Your task to perform on an android device: see creations saved in the google photos Image 0: 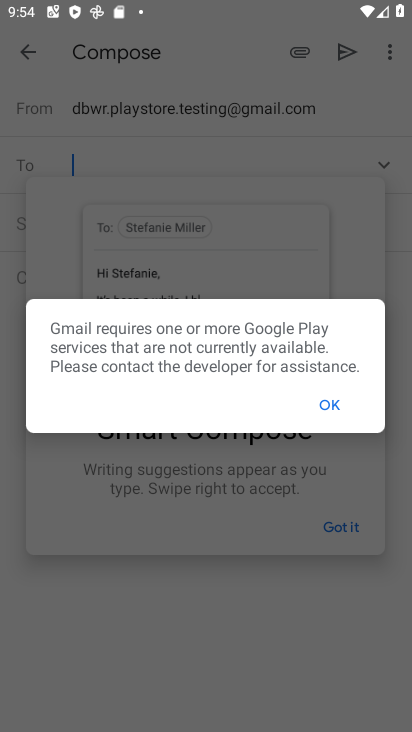
Step 0: press home button
Your task to perform on an android device: see creations saved in the google photos Image 1: 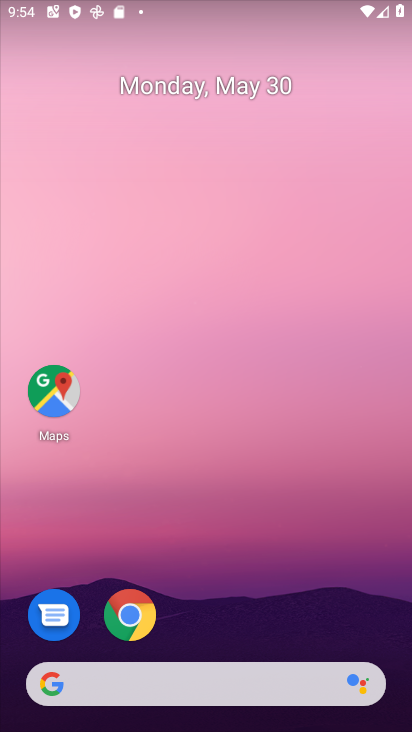
Step 1: drag from (313, 487) to (244, 5)
Your task to perform on an android device: see creations saved in the google photos Image 2: 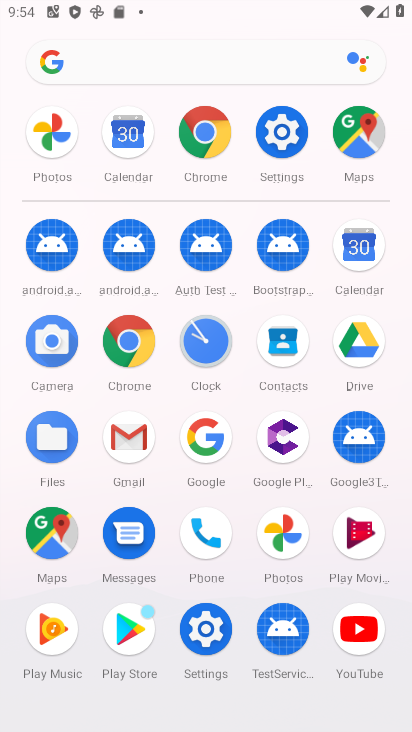
Step 2: click (286, 537)
Your task to perform on an android device: see creations saved in the google photos Image 3: 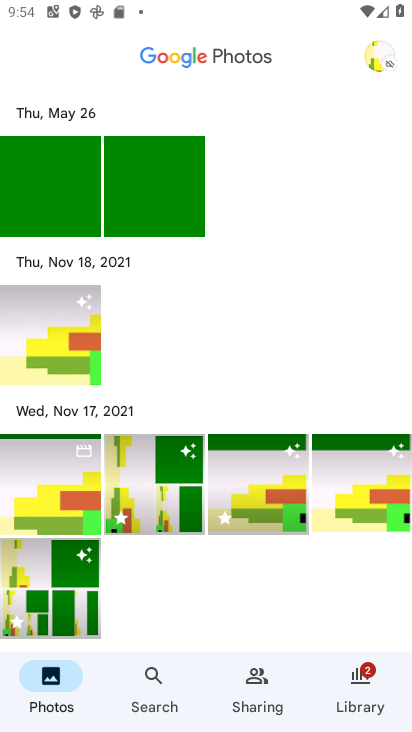
Step 3: click (150, 691)
Your task to perform on an android device: see creations saved in the google photos Image 4: 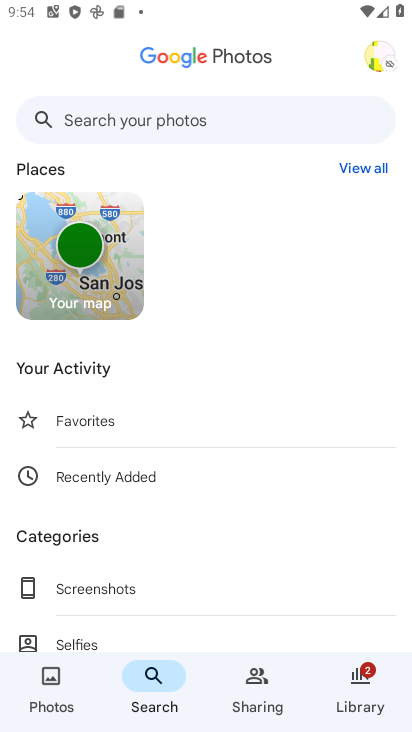
Step 4: click (203, 122)
Your task to perform on an android device: see creations saved in the google photos Image 5: 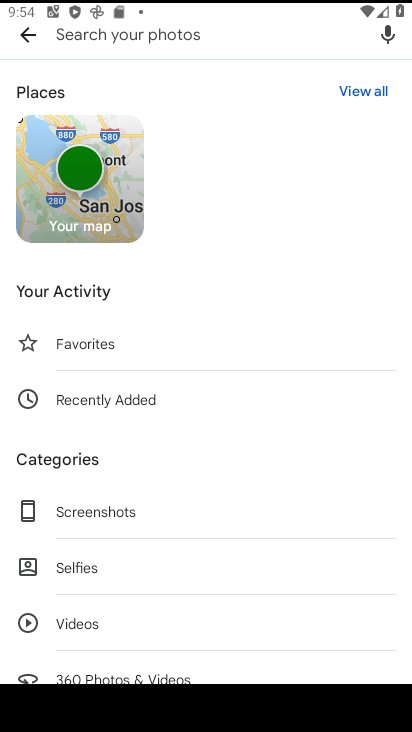
Step 5: type "creations"
Your task to perform on an android device: see creations saved in the google photos Image 6: 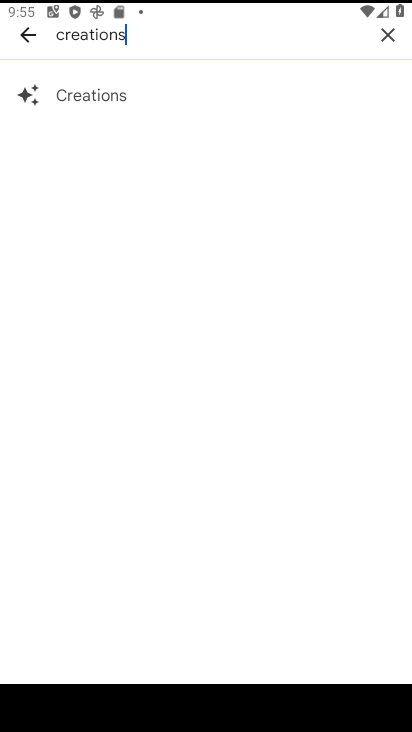
Step 6: click (109, 98)
Your task to perform on an android device: see creations saved in the google photos Image 7: 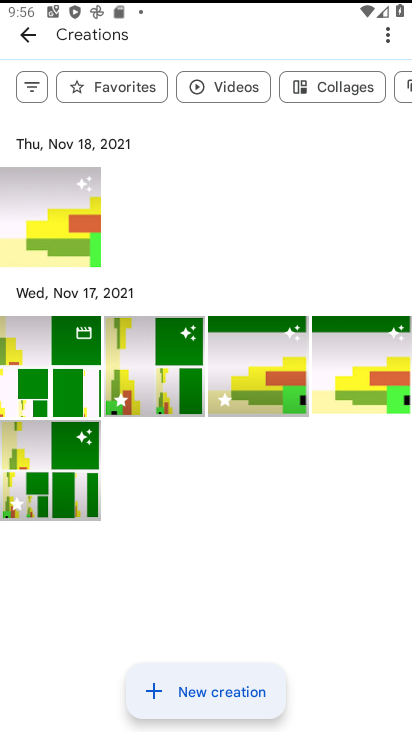
Step 7: task complete